Your task to perform on an android device: Open calendar and show me the third week of next month Image 0: 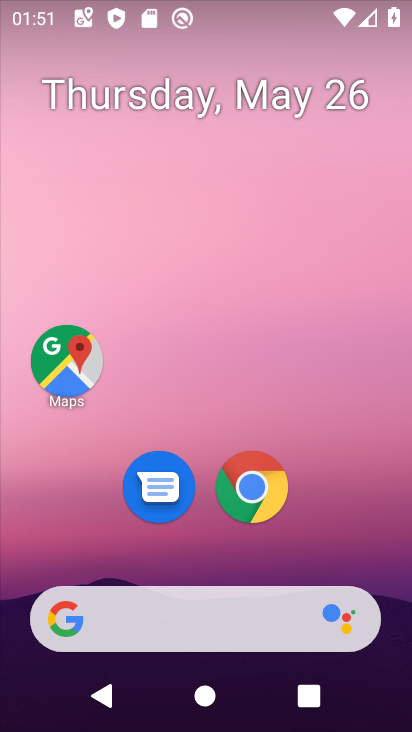
Step 0: drag from (157, 591) to (222, 18)
Your task to perform on an android device: Open calendar and show me the third week of next month Image 1: 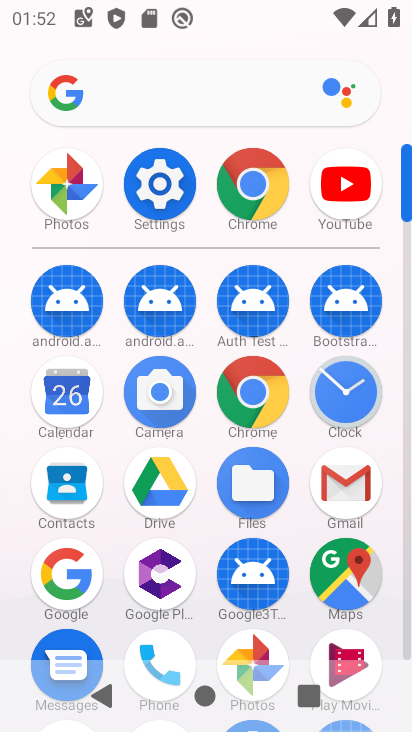
Step 1: click (72, 401)
Your task to perform on an android device: Open calendar and show me the third week of next month Image 2: 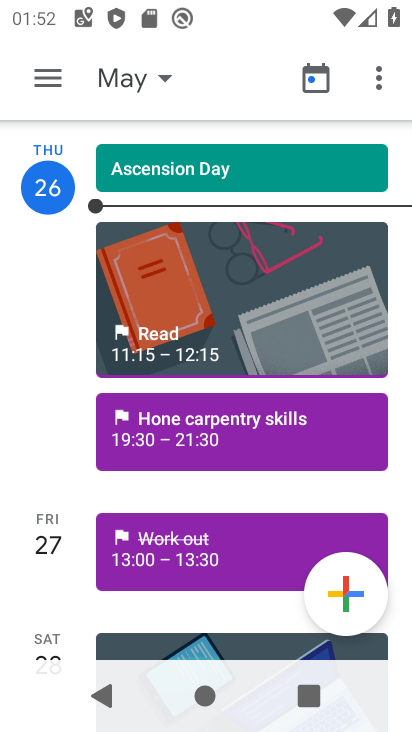
Step 2: click (51, 83)
Your task to perform on an android device: Open calendar and show me the third week of next month Image 3: 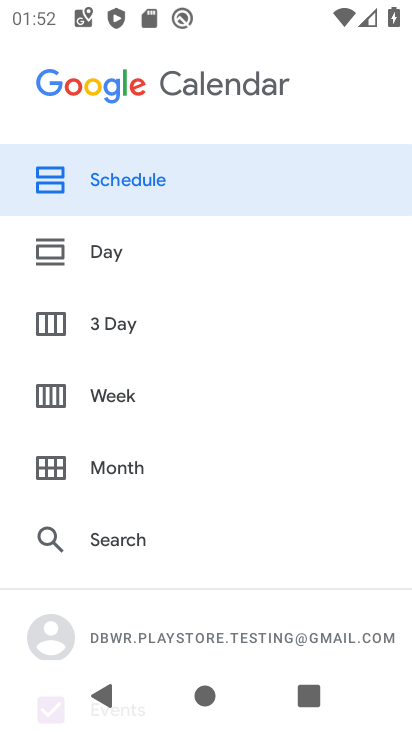
Step 3: click (131, 470)
Your task to perform on an android device: Open calendar and show me the third week of next month Image 4: 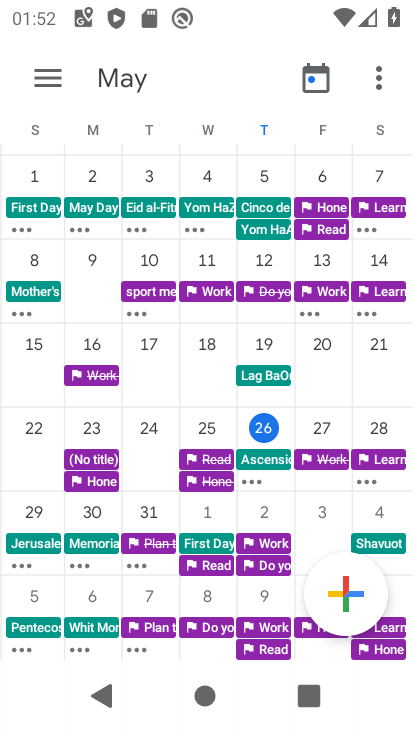
Step 4: task complete